Your task to perform on an android device: delete a single message in the gmail app Image 0: 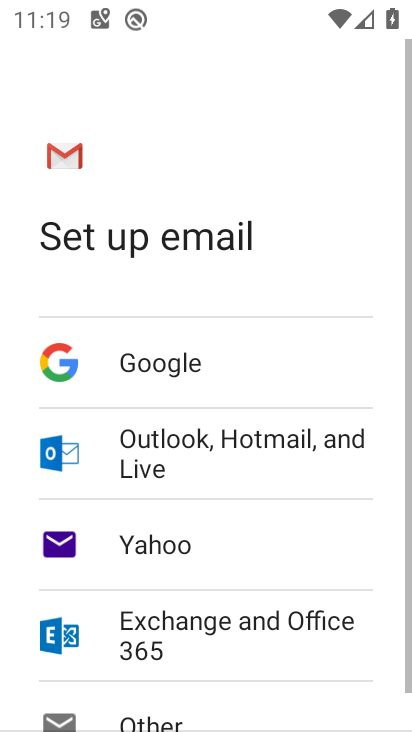
Step 0: press home button
Your task to perform on an android device: delete a single message in the gmail app Image 1: 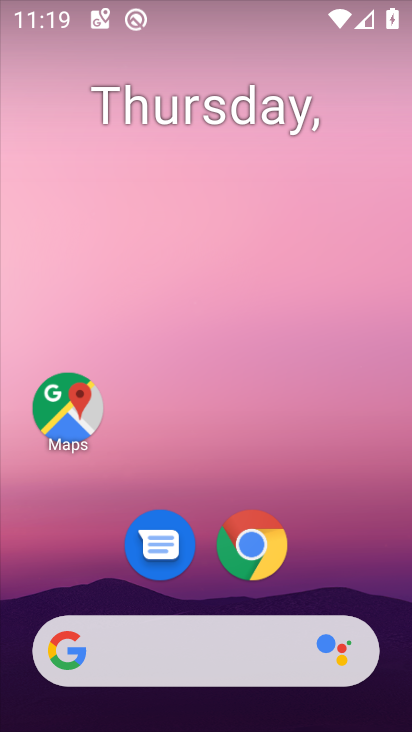
Step 1: drag from (328, 573) to (156, 9)
Your task to perform on an android device: delete a single message in the gmail app Image 2: 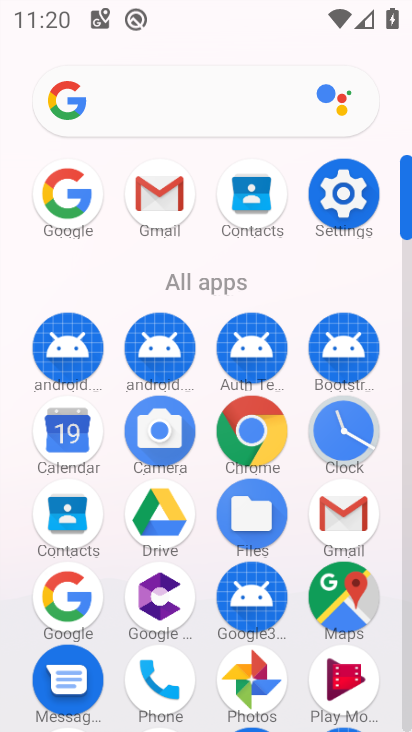
Step 2: click (336, 517)
Your task to perform on an android device: delete a single message in the gmail app Image 3: 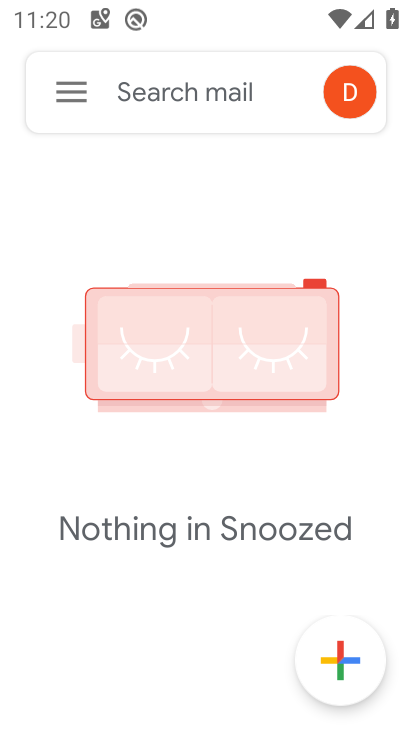
Step 3: click (68, 100)
Your task to perform on an android device: delete a single message in the gmail app Image 4: 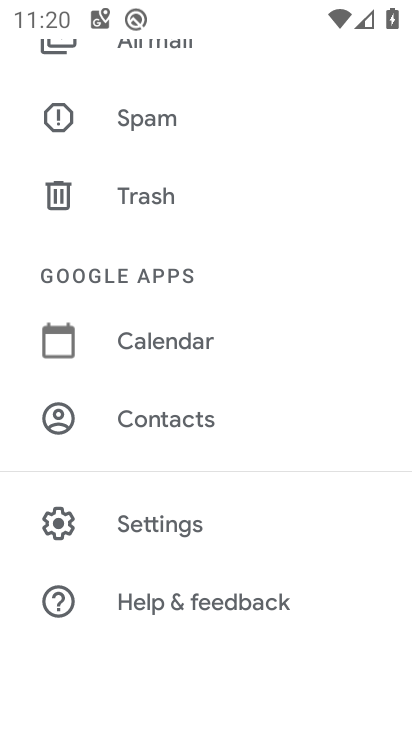
Step 4: drag from (224, 154) to (42, 559)
Your task to perform on an android device: delete a single message in the gmail app Image 5: 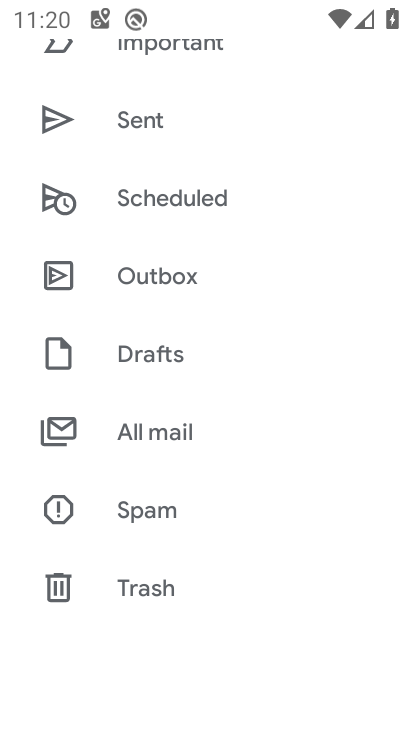
Step 5: drag from (250, 299) to (153, 568)
Your task to perform on an android device: delete a single message in the gmail app Image 6: 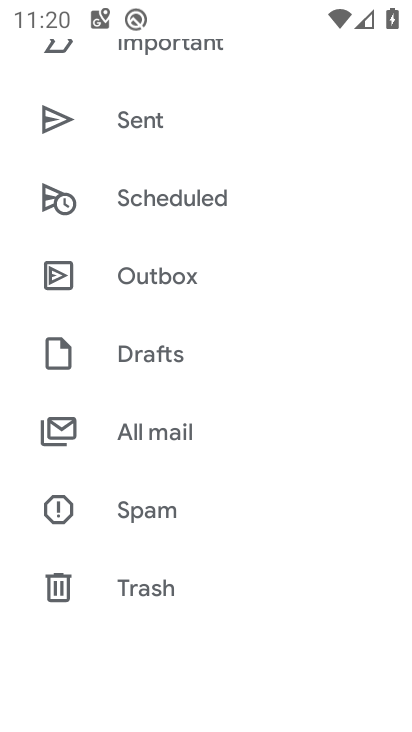
Step 6: drag from (180, 235) to (159, 497)
Your task to perform on an android device: delete a single message in the gmail app Image 7: 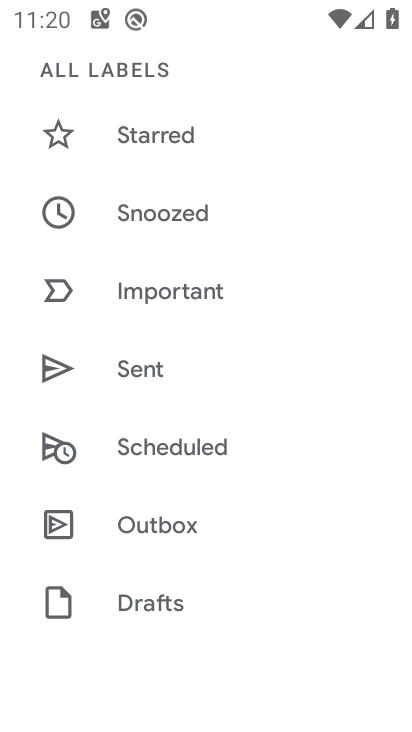
Step 7: drag from (174, 567) to (207, 326)
Your task to perform on an android device: delete a single message in the gmail app Image 8: 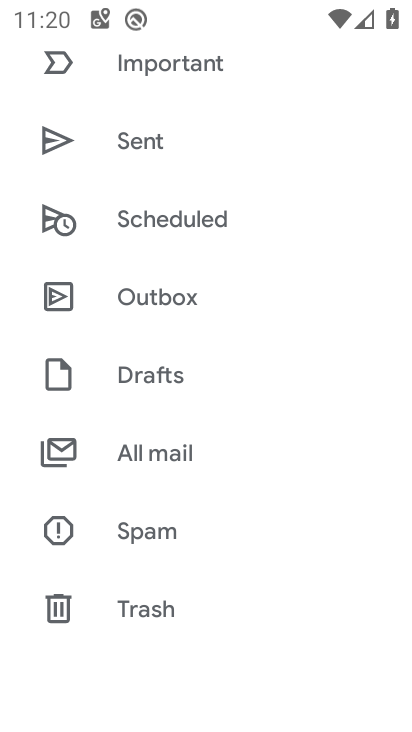
Step 8: click (173, 456)
Your task to perform on an android device: delete a single message in the gmail app Image 9: 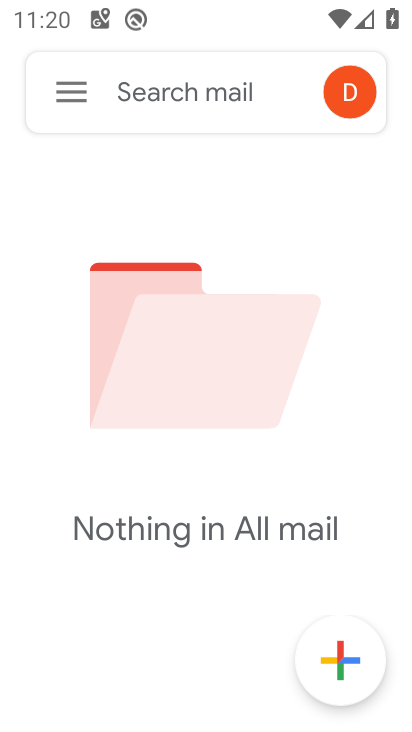
Step 9: task complete